Your task to perform on an android device: open a new tab in the chrome app Image 0: 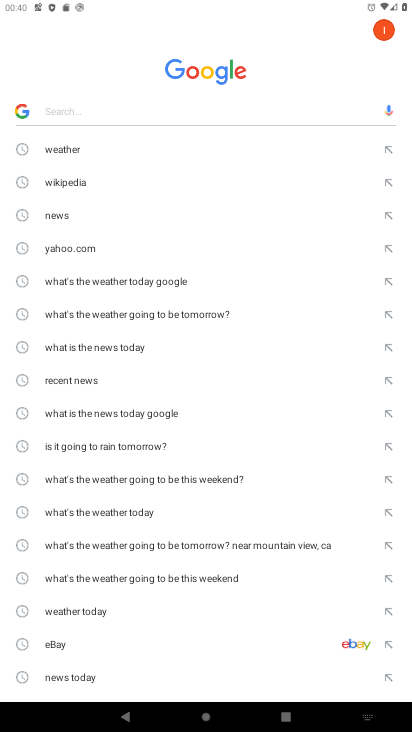
Step 0: press home button
Your task to perform on an android device: open a new tab in the chrome app Image 1: 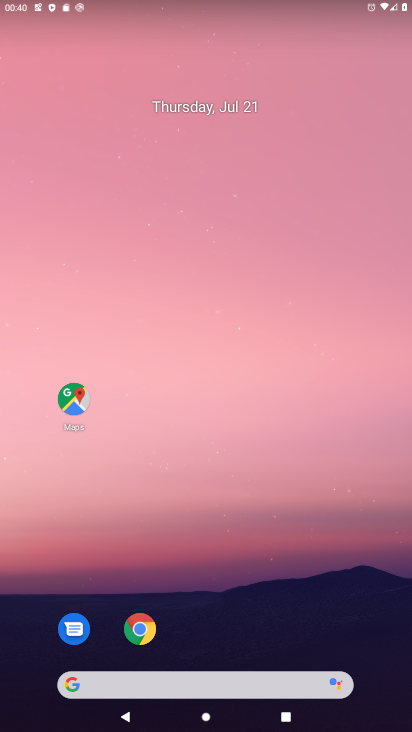
Step 1: drag from (268, 564) to (249, 84)
Your task to perform on an android device: open a new tab in the chrome app Image 2: 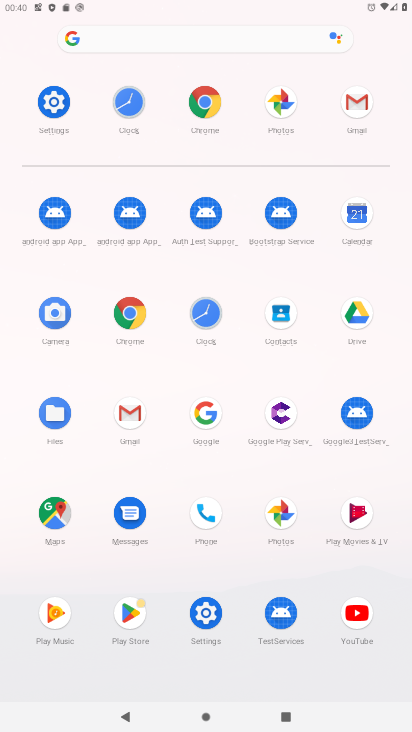
Step 2: click (209, 99)
Your task to perform on an android device: open a new tab in the chrome app Image 3: 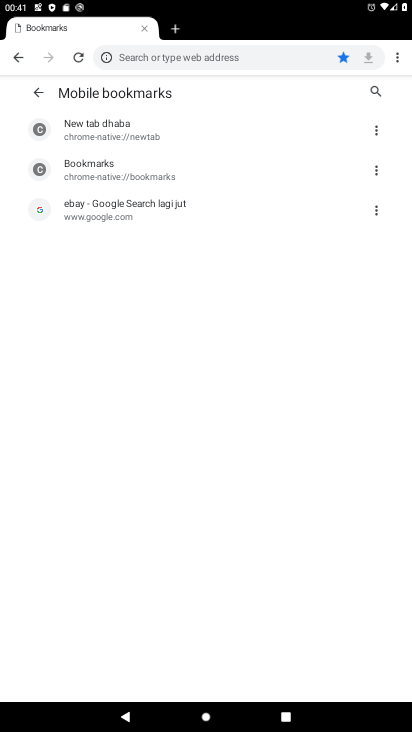
Step 3: task complete